Your task to perform on an android device: delete browsing data in the chrome app Image 0: 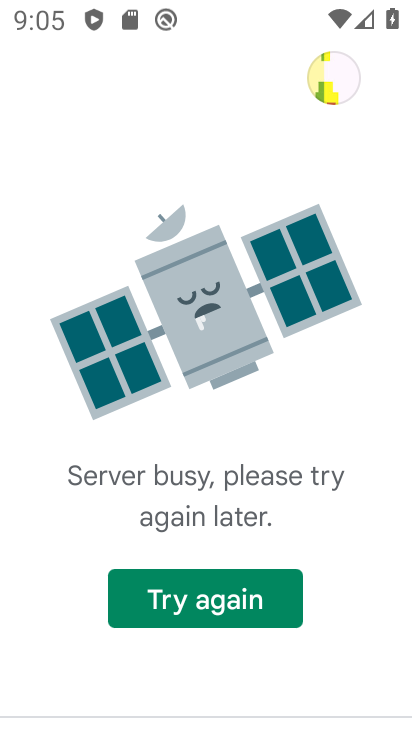
Step 0: press home button
Your task to perform on an android device: delete browsing data in the chrome app Image 1: 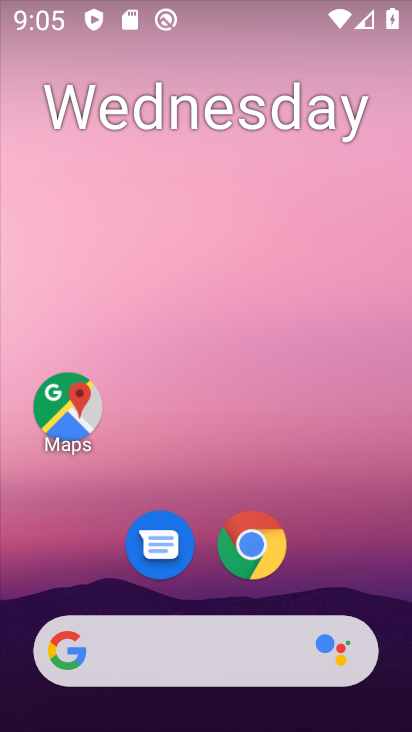
Step 1: click (255, 551)
Your task to perform on an android device: delete browsing data in the chrome app Image 2: 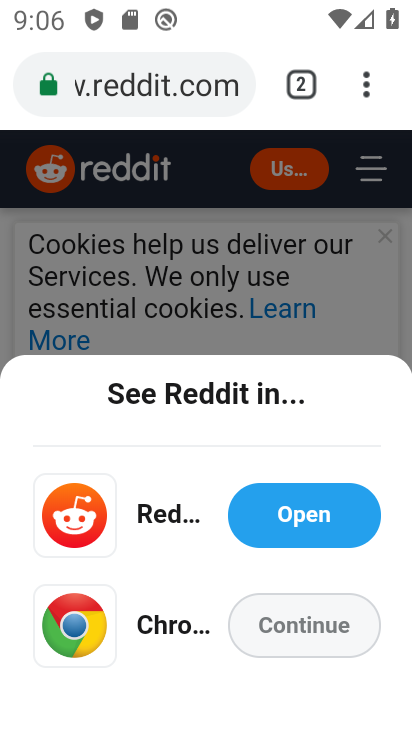
Step 2: click (369, 87)
Your task to perform on an android device: delete browsing data in the chrome app Image 3: 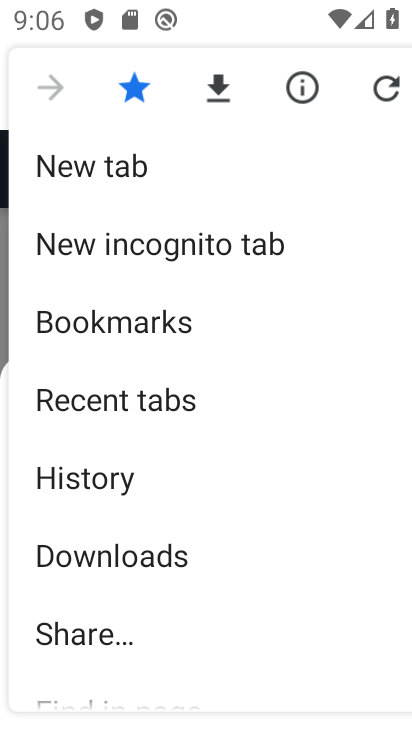
Step 3: click (143, 478)
Your task to perform on an android device: delete browsing data in the chrome app Image 4: 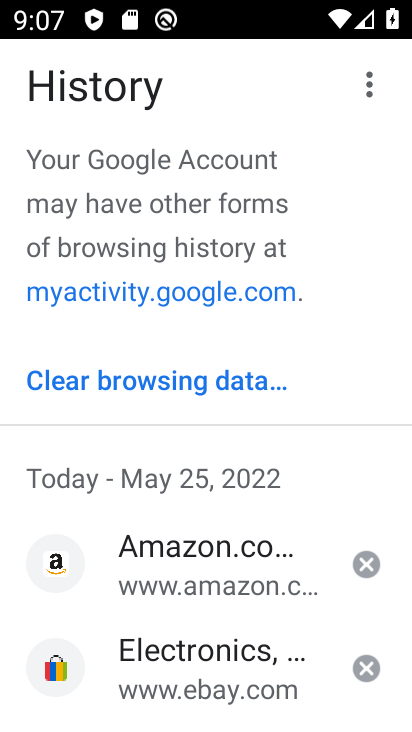
Step 4: click (149, 383)
Your task to perform on an android device: delete browsing data in the chrome app Image 5: 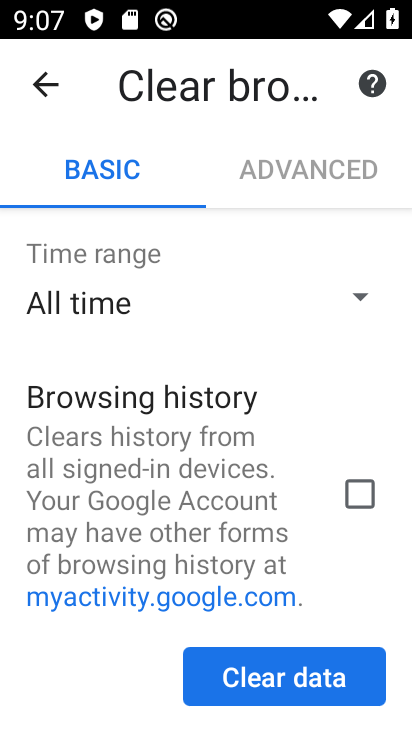
Step 5: click (329, 487)
Your task to perform on an android device: delete browsing data in the chrome app Image 6: 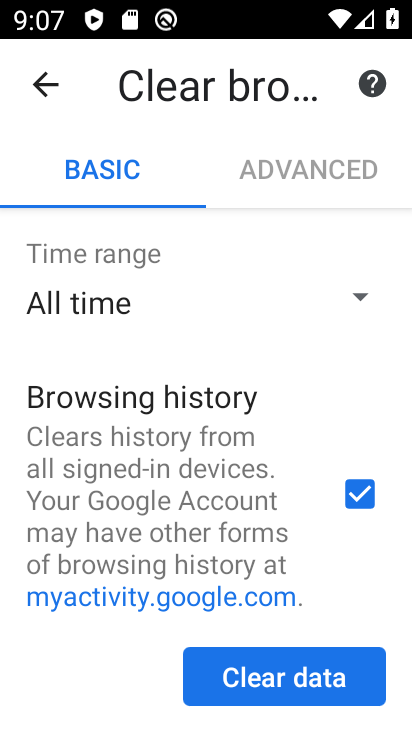
Step 6: click (300, 664)
Your task to perform on an android device: delete browsing data in the chrome app Image 7: 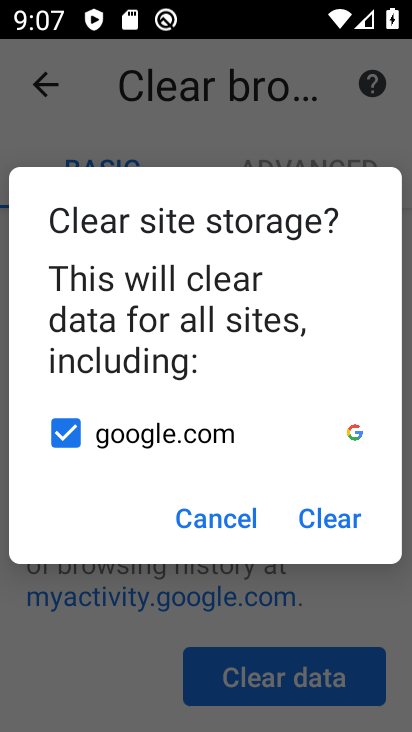
Step 7: click (327, 514)
Your task to perform on an android device: delete browsing data in the chrome app Image 8: 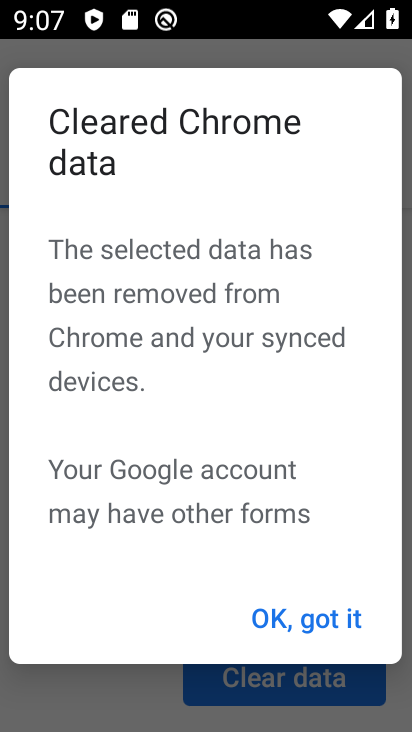
Step 8: click (285, 628)
Your task to perform on an android device: delete browsing data in the chrome app Image 9: 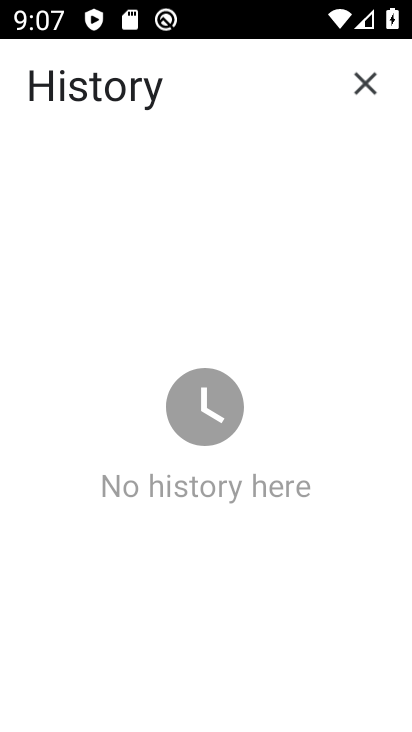
Step 9: task complete